Your task to perform on an android device: Open Maps and search for coffee Image 0: 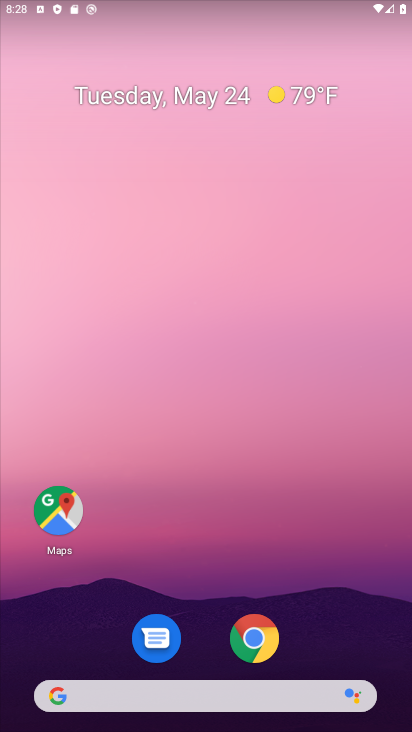
Step 0: click (52, 525)
Your task to perform on an android device: Open Maps and search for coffee Image 1: 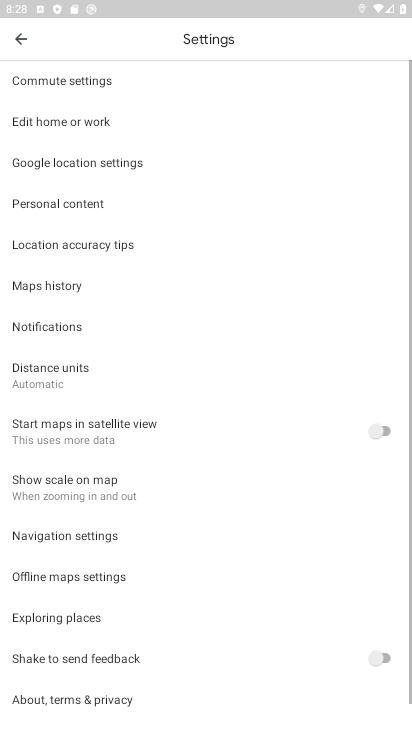
Step 1: click (10, 31)
Your task to perform on an android device: Open Maps and search for coffee Image 2: 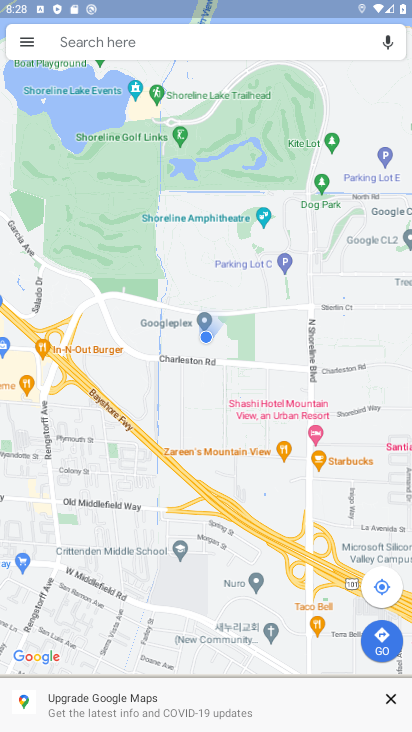
Step 2: click (132, 45)
Your task to perform on an android device: Open Maps and search for coffee Image 3: 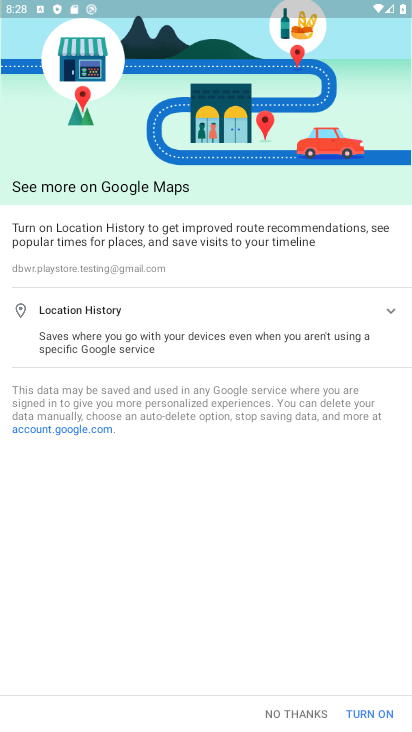
Step 3: click (282, 708)
Your task to perform on an android device: Open Maps and search for coffee Image 4: 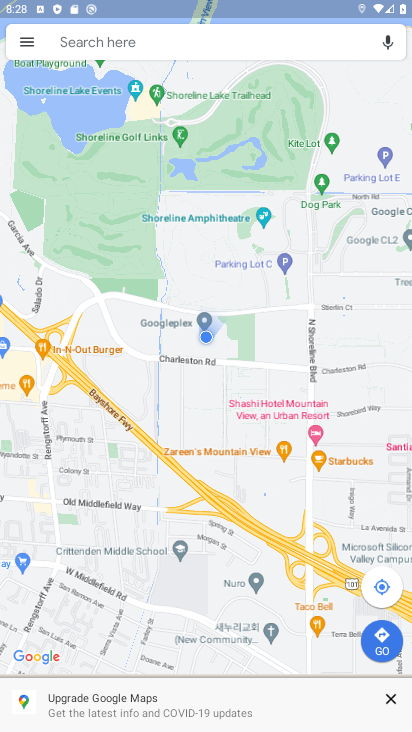
Step 4: click (223, 40)
Your task to perform on an android device: Open Maps and search for coffee Image 5: 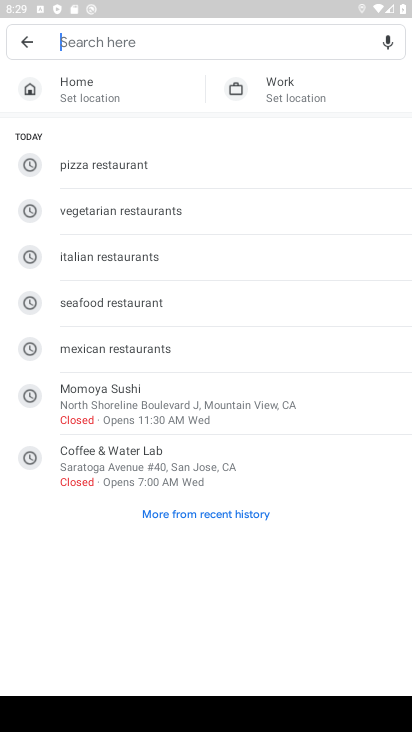
Step 5: type "coffee"
Your task to perform on an android device: Open Maps and search for coffee Image 6: 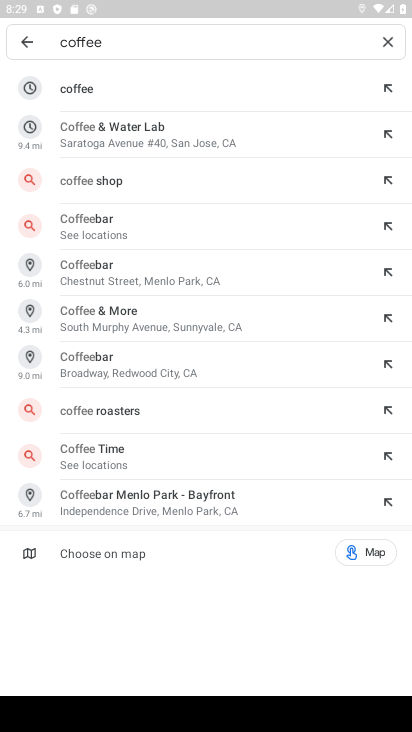
Step 6: click (172, 69)
Your task to perform on an android device: Open Maps and search for coffee Image 7: 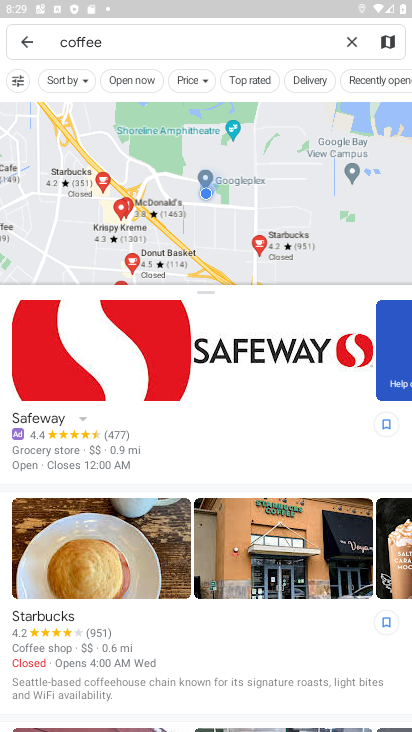
Step 7: task complete